Your task to perform on an android device: turn off location history Image 0: 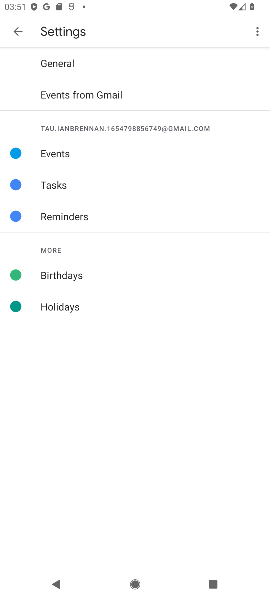
Step 0: press home button
Your task to perform on an android device: turn off location history Image 1: 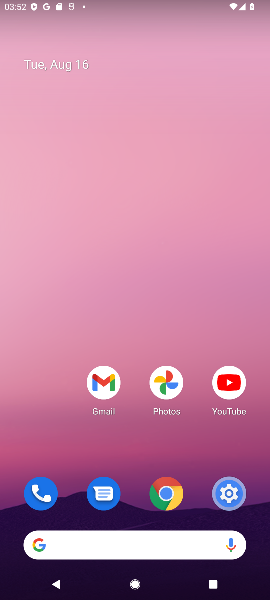
Step 1: drag from (67, 472) to (64, 163)
Your task to perform on an android device: turn off location history Image 2: 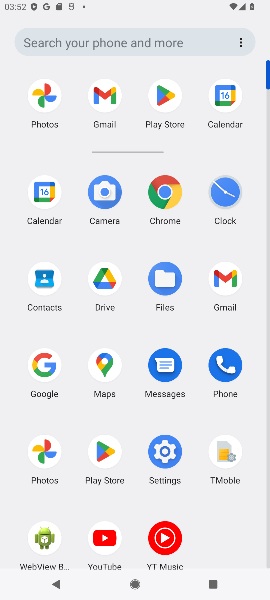
Step 2: click (162, 453)
Your task to perform on an android device: turn off location history Image 3: 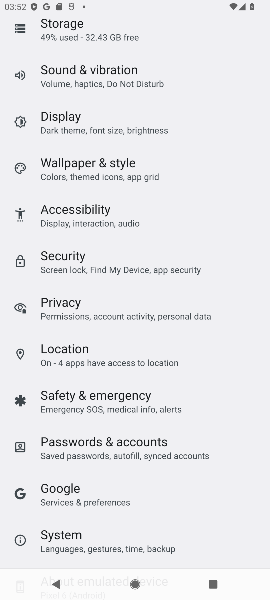
Step 3: drag from (234, 195) to (237, 274)
Your task to perform on an android device: turn off location history Image 4: 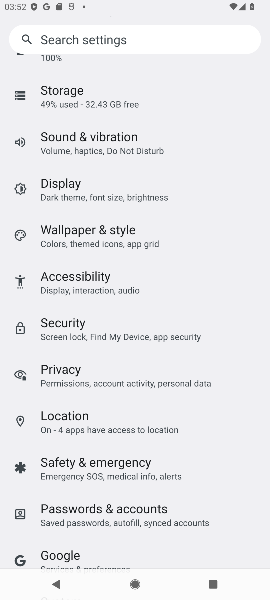
Step 4: drag from (238, 168) to (238, 265)
Your task to perform on an android device: turn off location history Image 5: 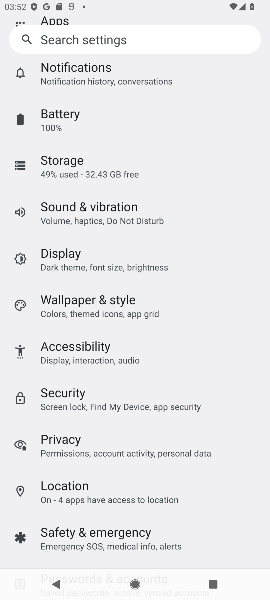
Step 5: click (167, 500)
Your task to perform on an android device: turn off location history Image 6: 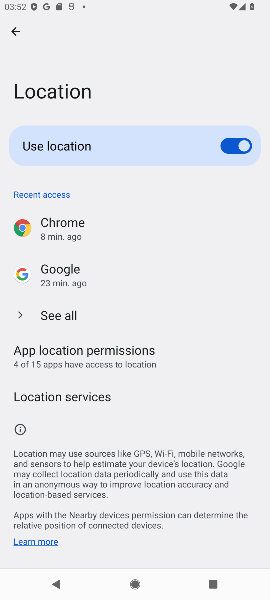
Step 6: click (139, 403)
Your task to perform on an android device: turn off location history Image 7: 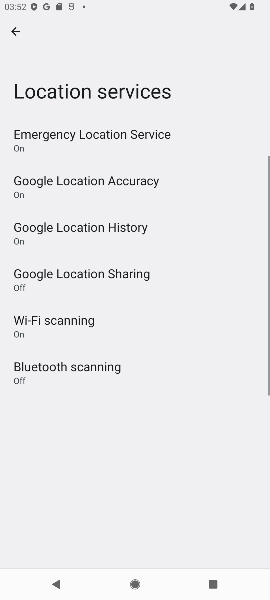
Step 7: click (156, 229)
Your task to perform on an android device: turn off location history Image 8: 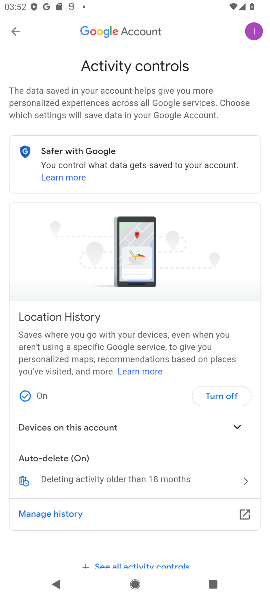
Step 8: click (225, 401)
Your task to perform on an android device: turn off location history Image 9: 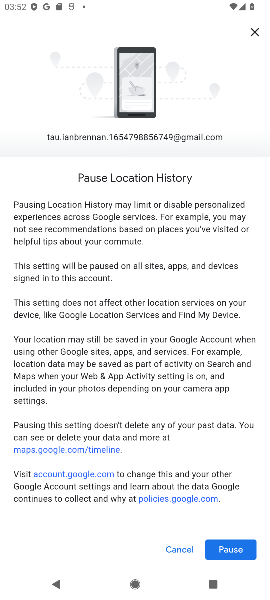
Step 9: drag from (191, 463) to (207, 202)
Your task to perform on an android device: turn off location history Image 10: 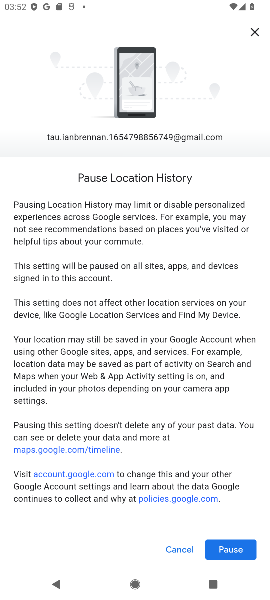
Step 10: click (229, 550)
Your task to perform on an android device: turn off location history Image 11: 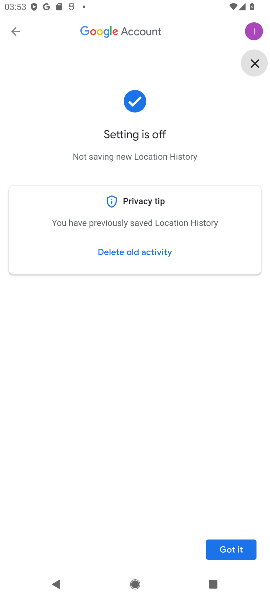
Step 11: task complete